Your task to perform on an android device: set the stopwatch Image 0: 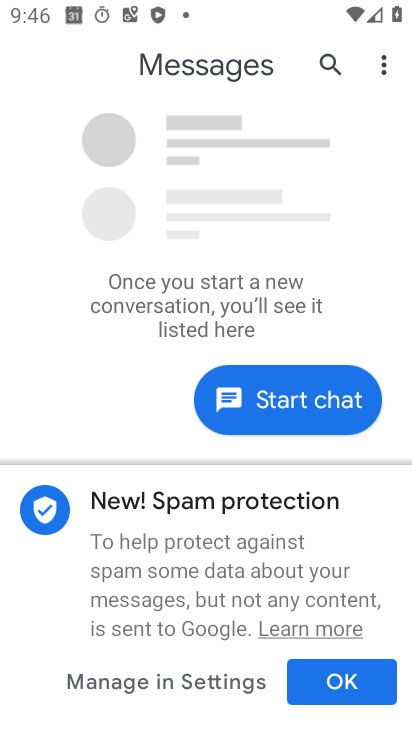
Step 0: press home button
Your task to perform on an android device: set the stopwatch Image 1: 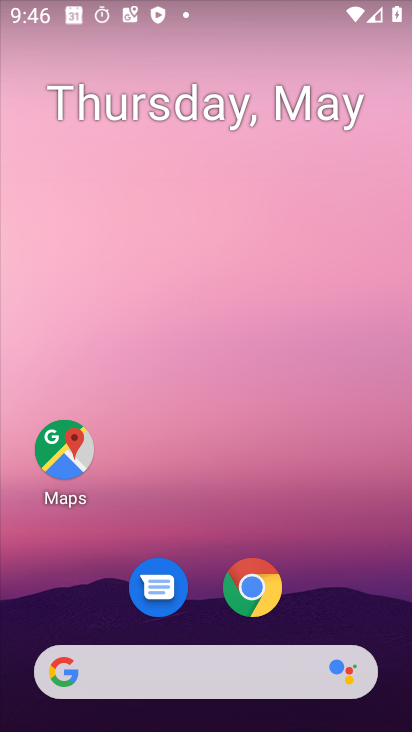
Step 1: drag from (343, 638) to (344, 17)
Your task to perform on an android device: set the stopwatch Image 2: 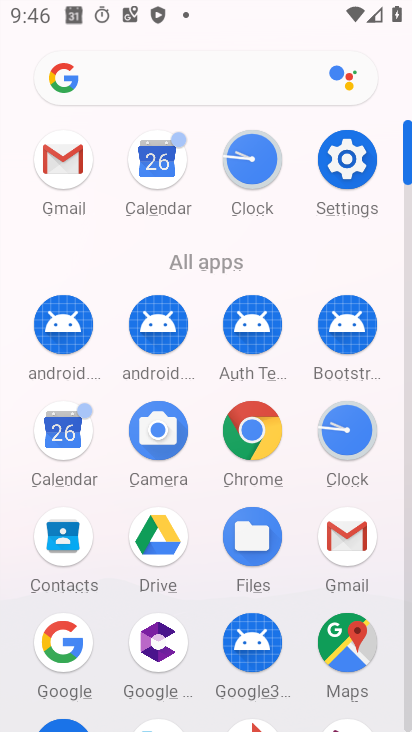
Step 2: click (260, 166)
Your task to perform on an android device: set the stopwatch Image 3: 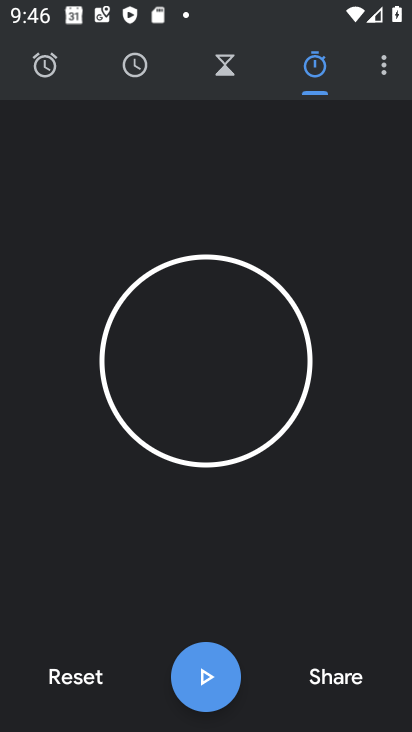
Step 3: click (200, 679)
Your task to perform on an android device: set the stopwatch Image 4: 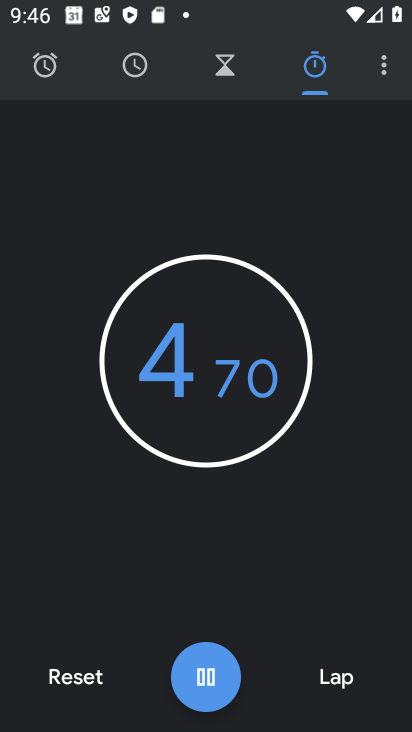
Step 4: click (82, 681)
Your task to perform on an android device: set the stopwatch Image 5: 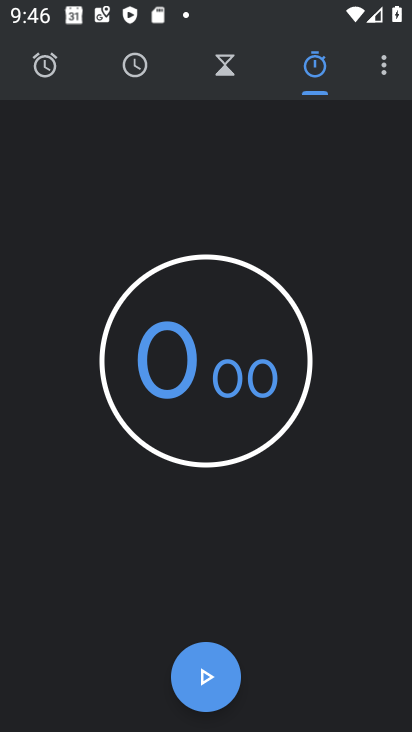
Step 5: click (198, 680)
Your task to perform on an android device: set the stopwatch Image 6: 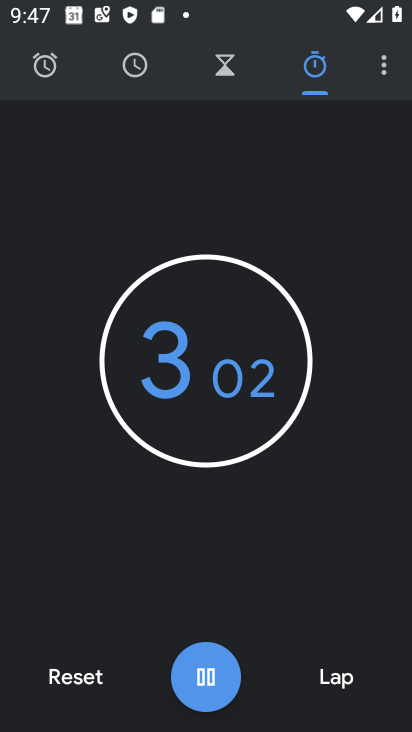
Step 6: click (208, 675)
Your task to perform on an android device: set the stopwatch Image 7: 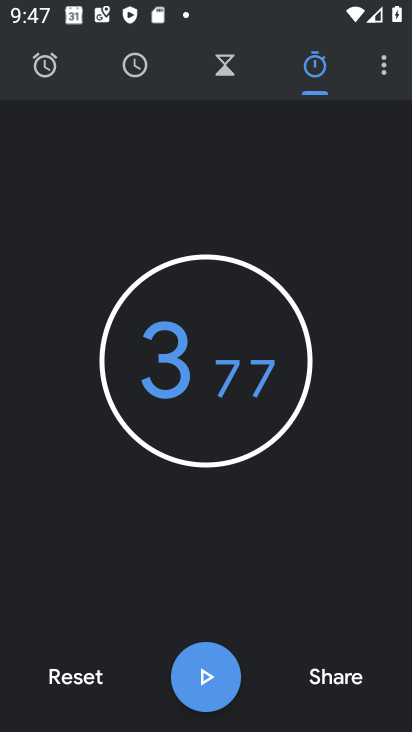
Step 7: task complete